Your task to perform on an android device: turn off priority inbox in the gmail app Image 0: 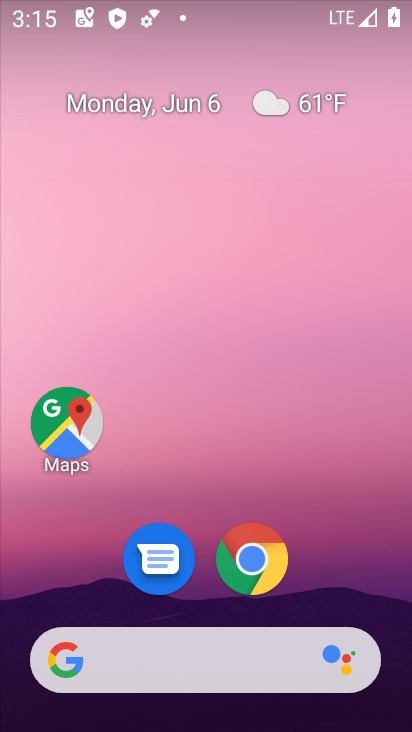
Step 0: drag from (202, 629) to (370, 61)
Your task to perform on an android device: turn off priority inbox in the gmail app Image 1: 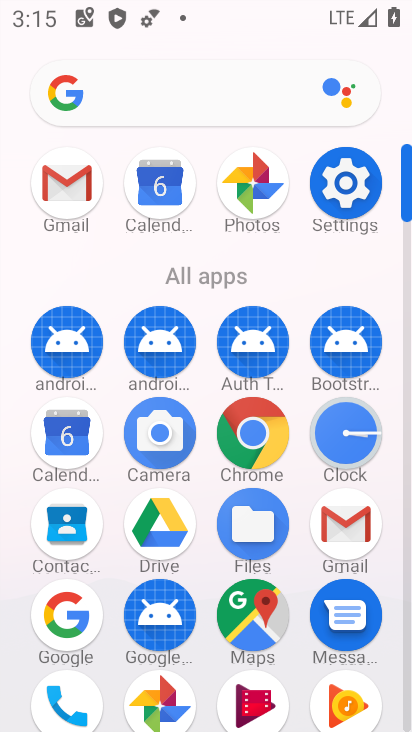
Step 1: click (337, 523)
Your task to perform on an android device: turn off priority inbox in the gmail app Image 2: 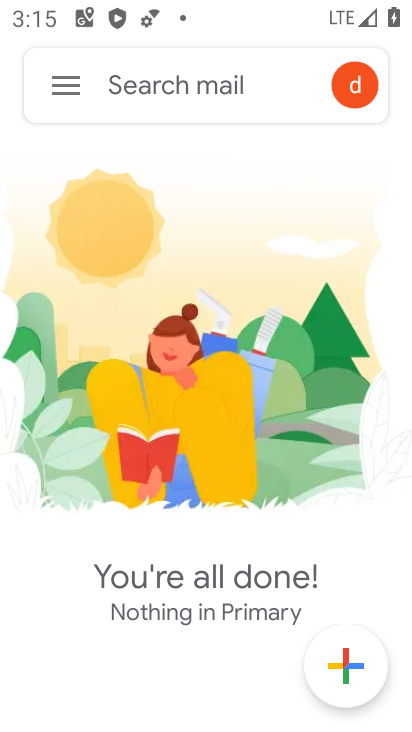
Step 2: click (57, 92)
Your task to perform on an android device: turn off priority inbox in the gmail app Image 3: 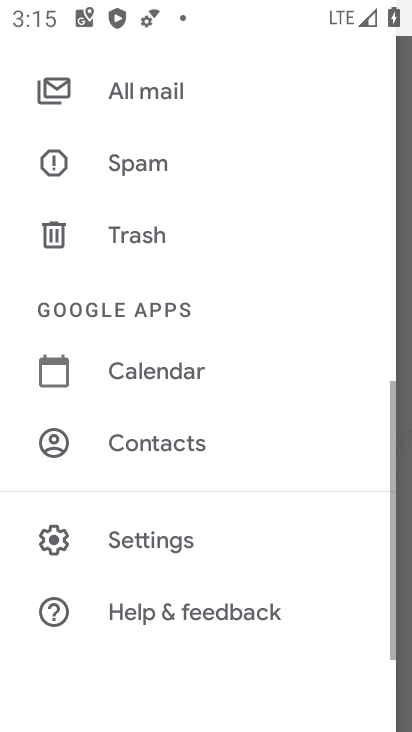
Step 3: click (132, 534)
Your task to perform on an android device: turn off priority inbox in the gmail app Image 4: 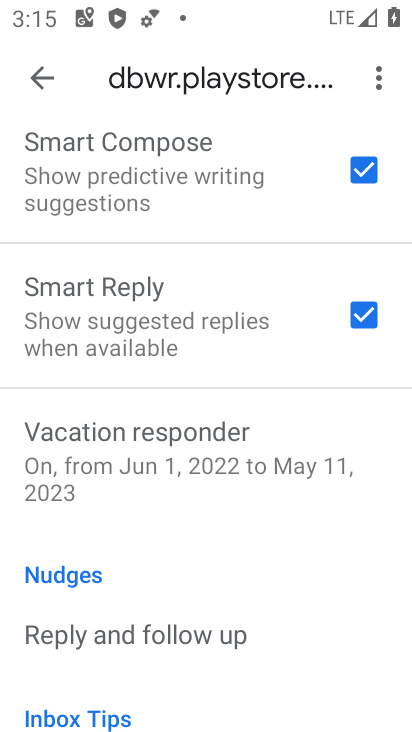
Step 4: drag from (263, 585) to (251, 113)
Your task to perform on an android device: turn off priority inbox in the gmail app Image 5: 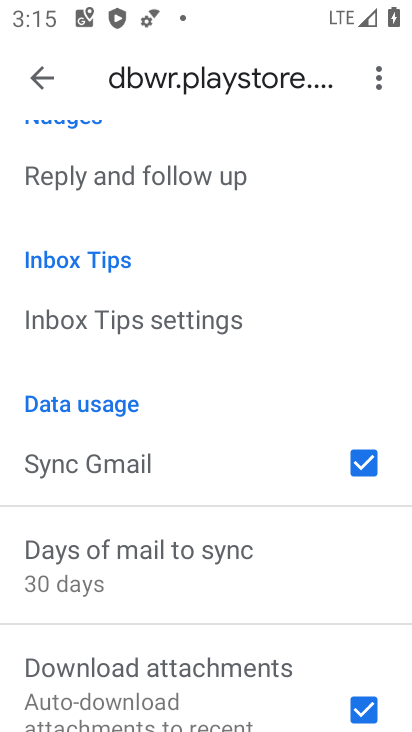
Step 5: drag from (274, 593) to (225, 117)
Your task to perform on an android device: turn off priority inbox in the gmail app Image 6: 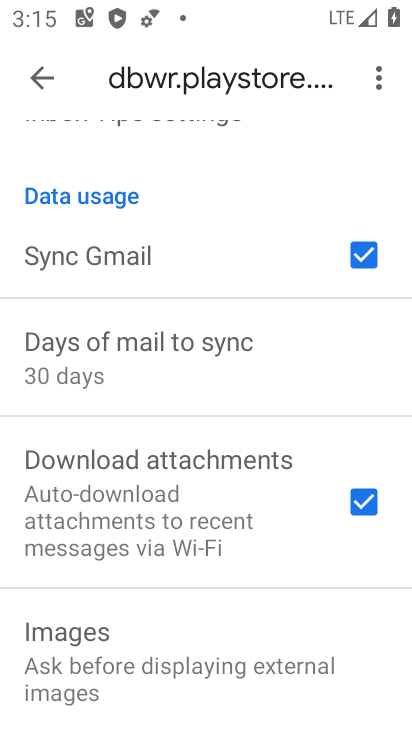
Step 6: click (15, 64)
Your task to perform on an android device: turn off priority inbox in the gmail app Image 7: 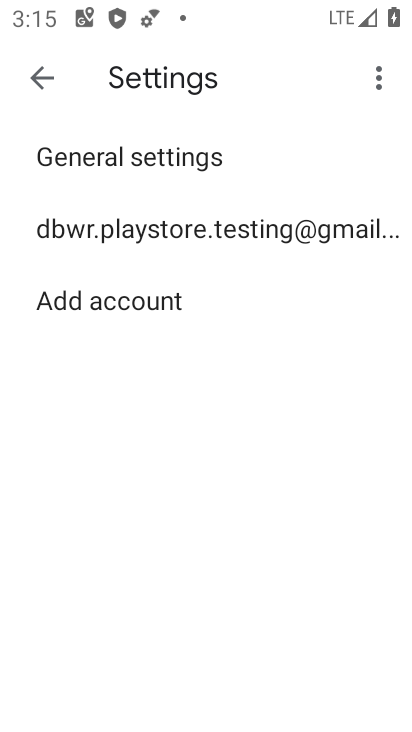
Step 7: click (111, 221)
Your task to perform on an android device: turn off priority inbox in the gmail app Image 8: 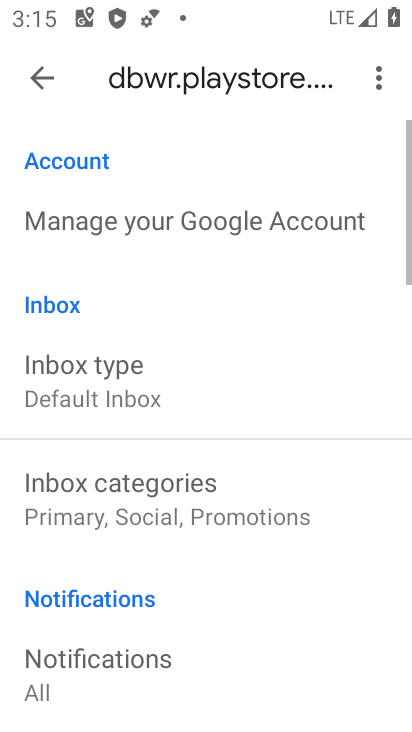
Step 8: click (142, 416)
Your task to perform on an android device: turn off priority inbox in the gmail app Image 9: 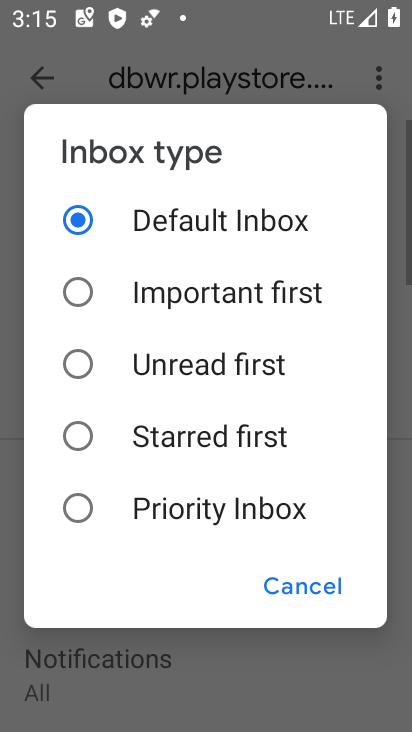
Step 9: task complete